Your task to perform on an android device: see creations saved in the google photos Image 0: 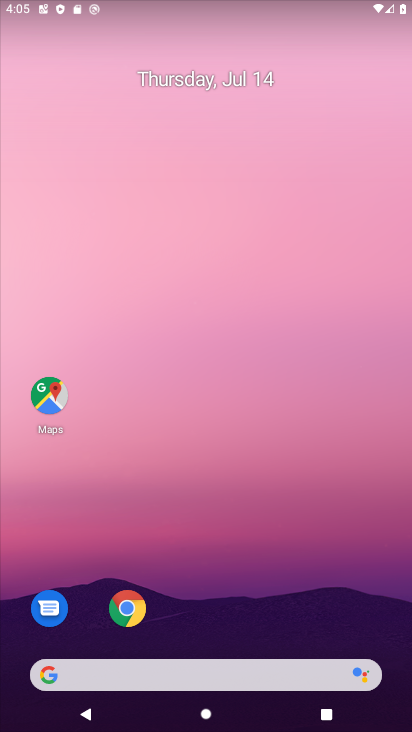
Step 0: drag from (31, 537) to (293, 34)
Your task to perform on an android device: see creations saved in the google photos Image 1: 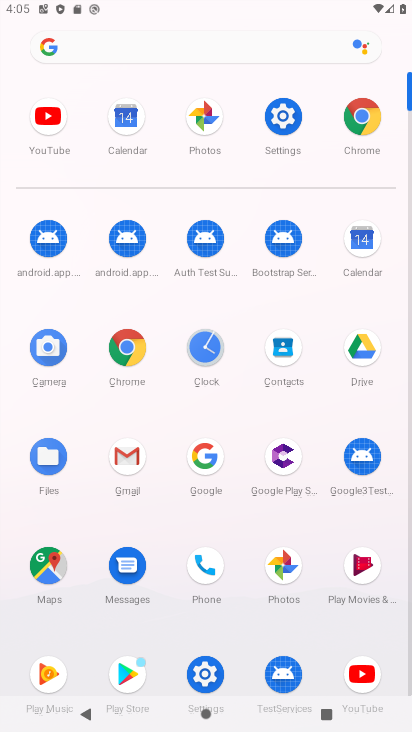
Step 1: click (288, 559)
Your task to perform on an android device: see creations saved in the google photos Image 2: 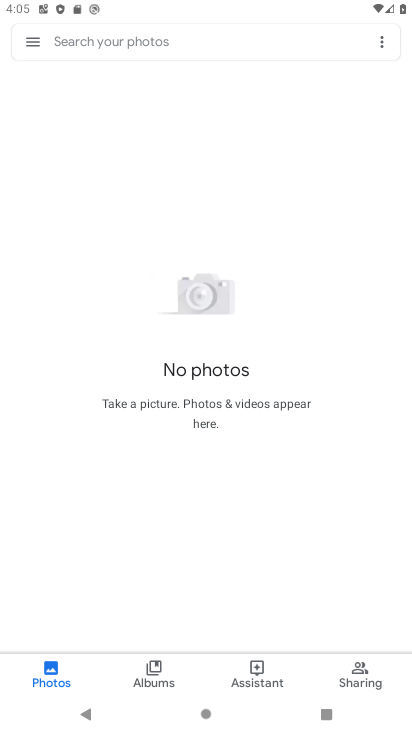
Step 2: click (137, 34)
Your task to perform on an android device: see creations saved in the google photos Image 3: 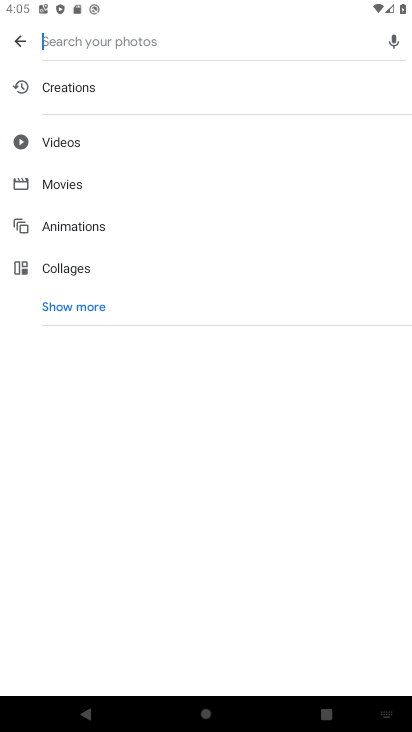
Step 3: click (68, 309)
Your task to perform on an android device: see creations saved in the google photos Image 4: 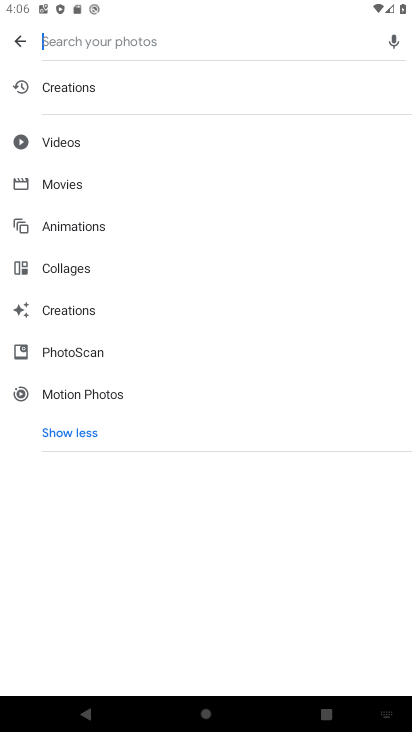
Step 4: click (94, 311)
Your task to perform on an android device: see creations saved in the google photos Image 5: 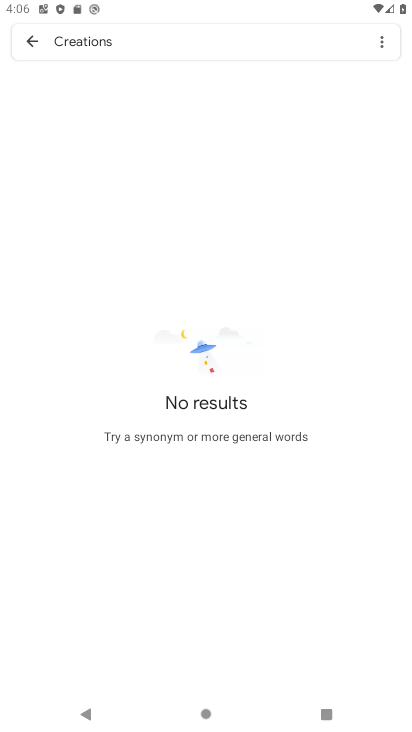
Step 5: task complete